Your task to perform on an android device: toggle show notifications on the lock screen Image 0: 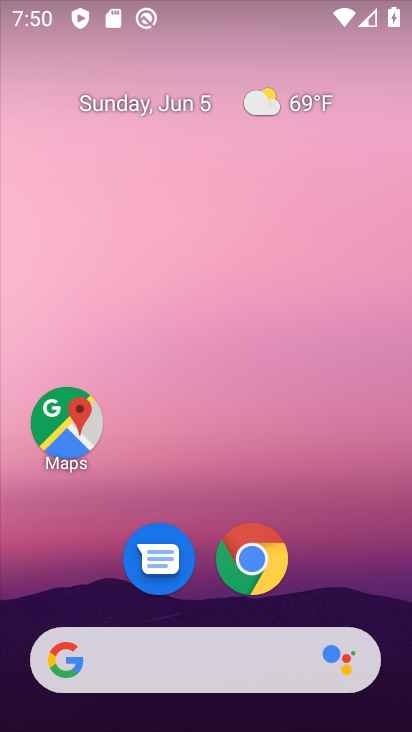
Step 0: drag from (373, 512) to (304, 106)
Your task to perform on an android device: toggle show notifications on the lock screen Image 1: 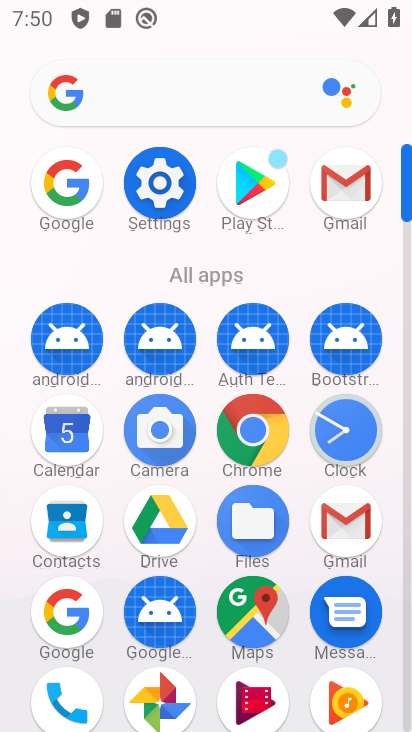
Step 1: click (161, 200)
Your task to perform on an android device: toggle show notifications on the lock screen Image 2: 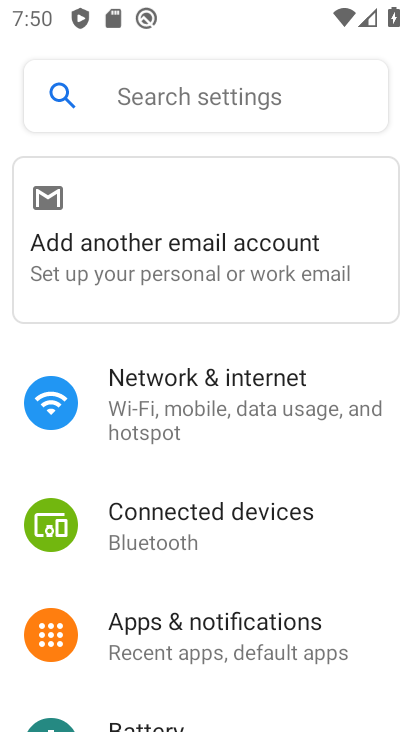
Step 2: click (251, 616)
Your task to perform on an android device: toggle show notifications on the lock screen Image 3: 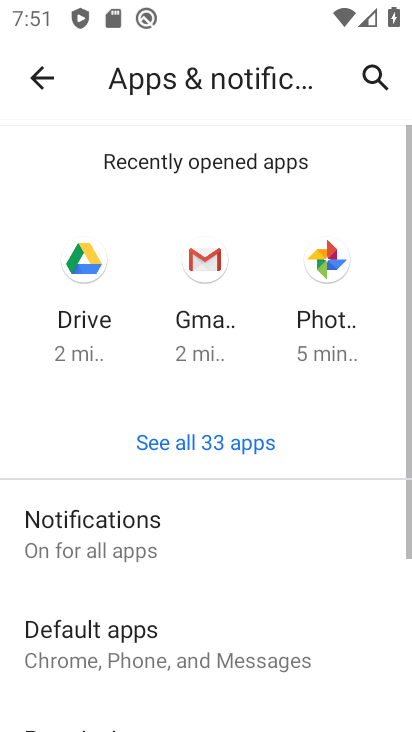
Step 3: click (115, 530)
Your task to perform on an android device: toggle show notifications on the lock screen Image 4: 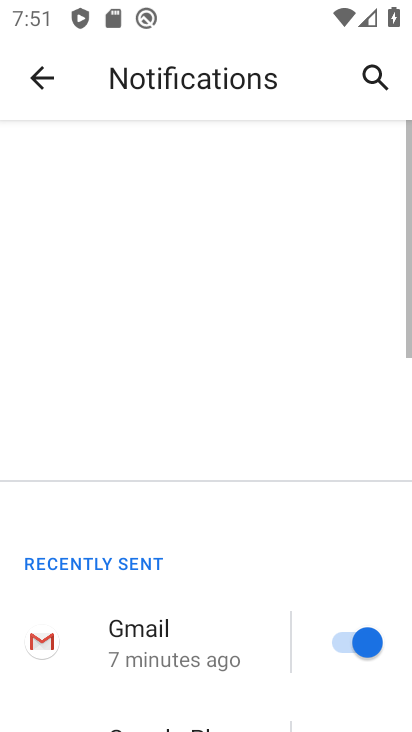
Step 4: drag from (250, 559) to (304, 14)
Your task to perform on an android device: toggle show notifications on the lock screen Image 5: 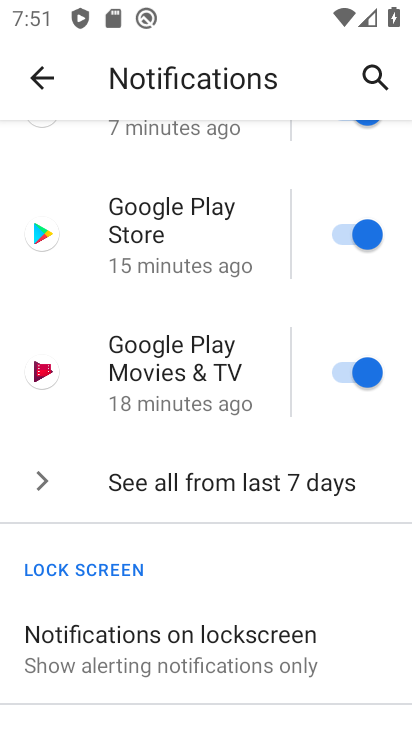
Step 5: click (256, 654)
Your task to perform on an android device: toggle show notifications on the lock screen Image 6: 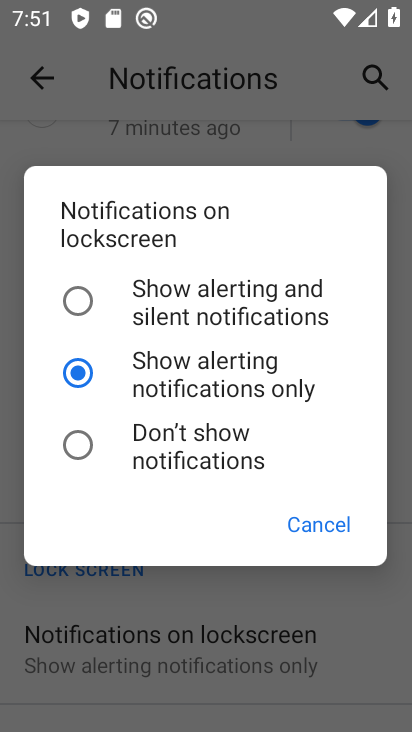
Step 6: click (139, 306)
Your task to perform on an android device: toggle show notifications on the lock screen Image 7: 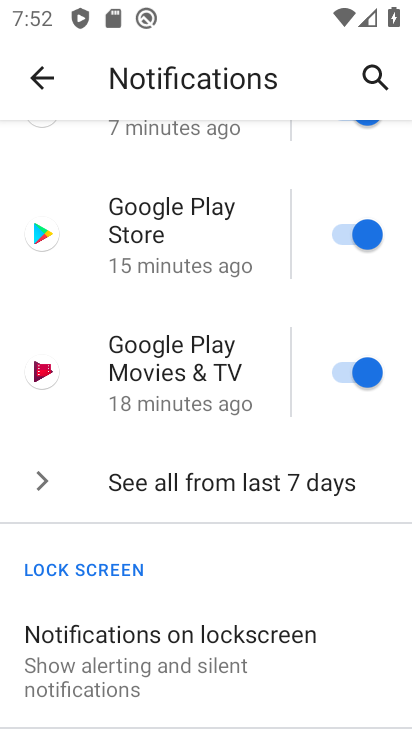
Step 7: task complete